Your task to perform on an android device: Open settings on Google Maps Image 0: 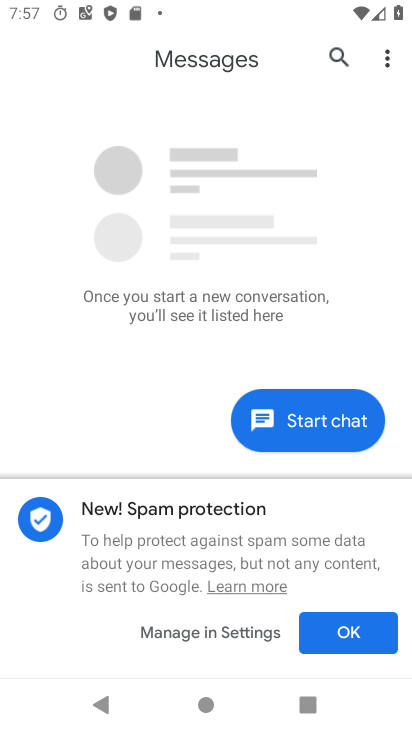
Step 0: press home button
Your task to perform on an android device: Open settings on Google Maps Image 1: 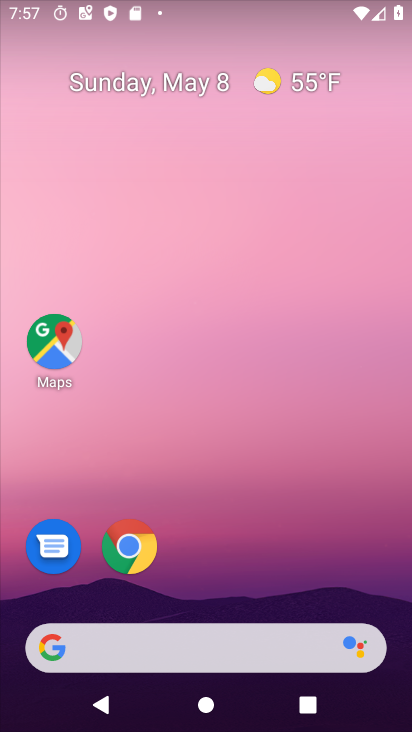
Step 1: click (56, 351)
Your task to perform on an android device: Open settings on Google Maps Image 2: 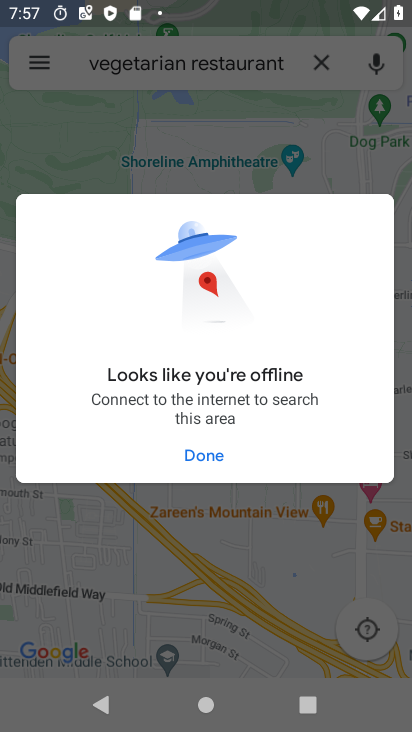
Step 2: click (191, 452)
Your task to perform on an android device: Open settings on Google Maps Image 3: 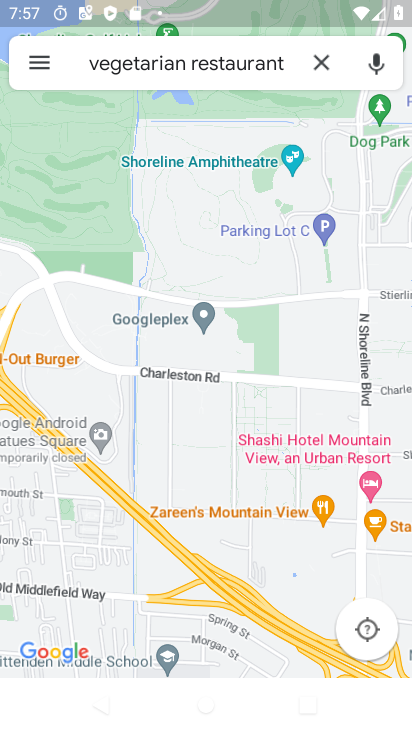
Step 3: click (40, 62)
Your task to perform on an android device: Open settings on Google Maps Image 4: 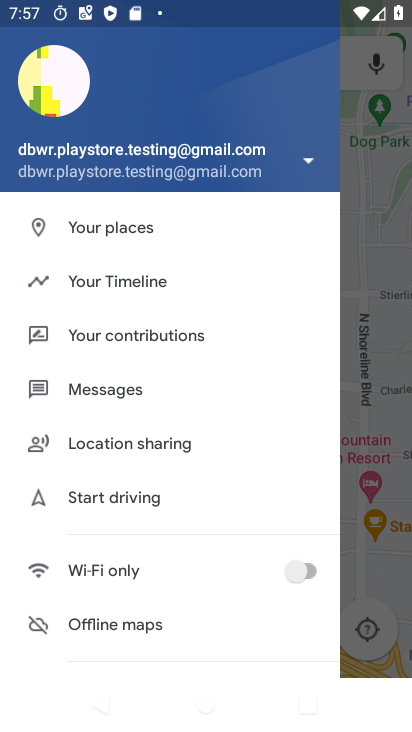
Step 4: drag from (195, 627) to (224, 8)
Your task to perform on an android device: Open settings on Google Maps Image 5: 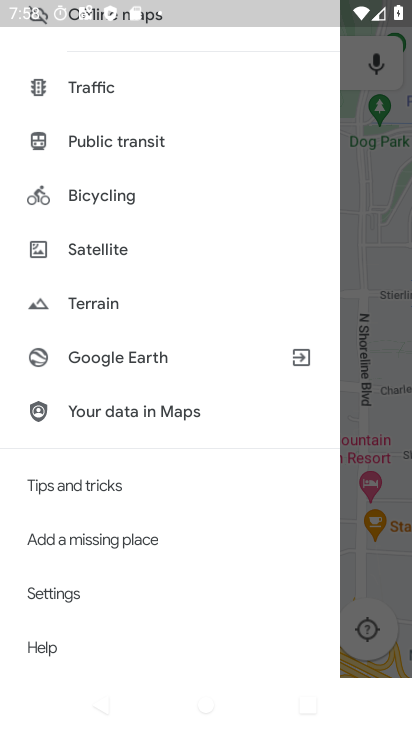
Step 5: click (117, 596)
Your task to perform on an android device: Open settings on Google Maps Image 6: 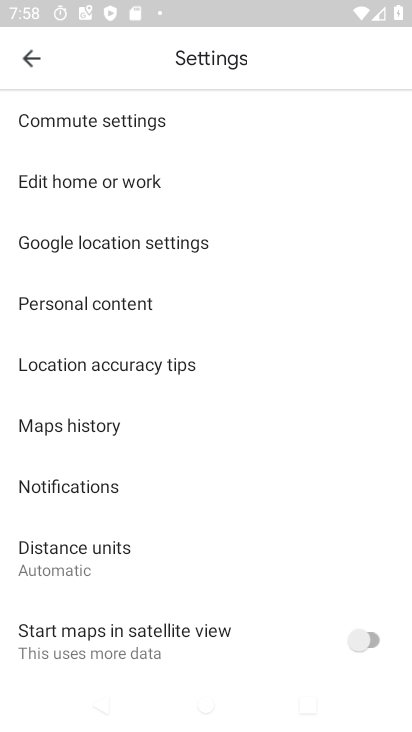
Step 6: task complete